Your task to perform on an android device: turn pop-ups on in chrome Image 0: 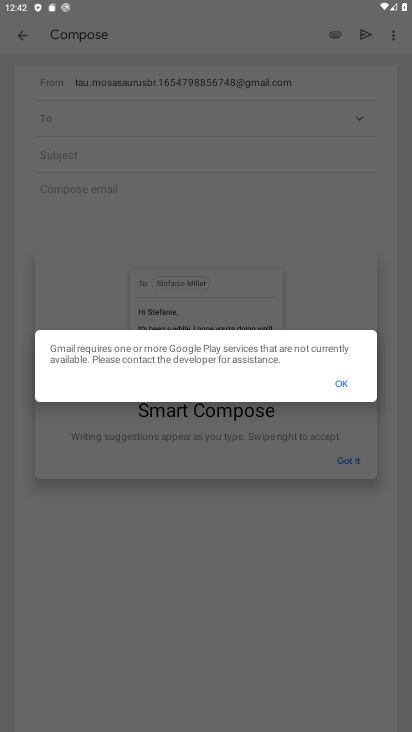
Step 0: press home button
Your task to perform on an android device: turn pop-ups on in chrome Image 1: 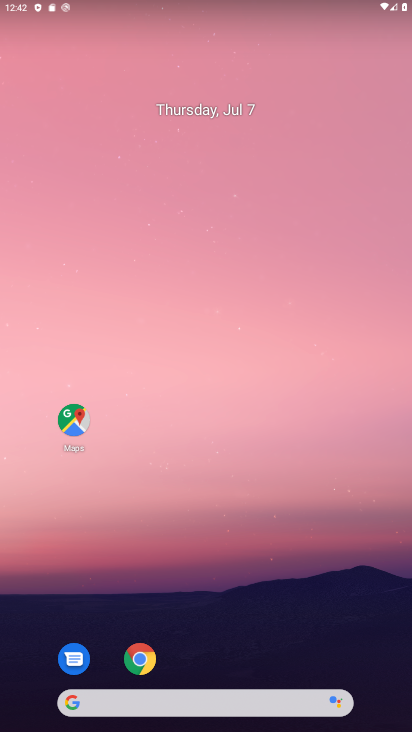
Step 1: click (147, 663)
Your task to perform on an android device: turn pop-ups on in chrome Image 2: 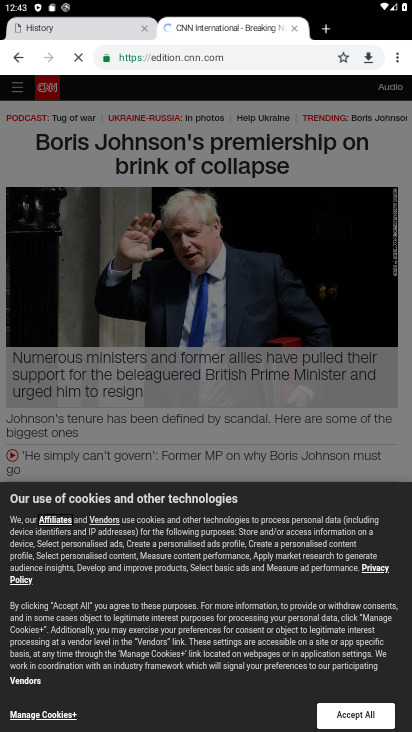
Step 2: click (396, 58)
Your task to perform on an android device: turn pop-ups on in chrome Image 3: 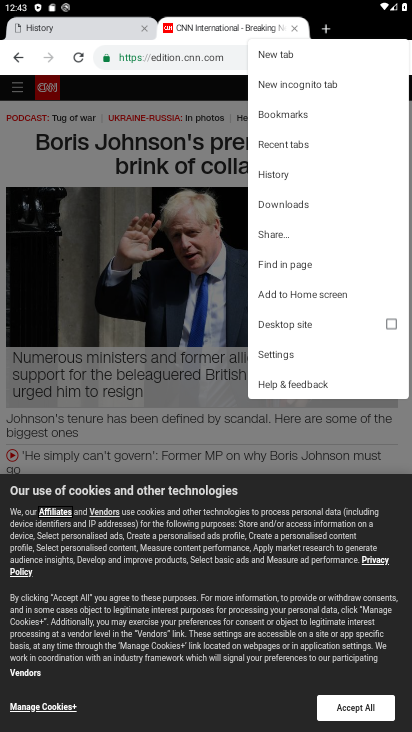
Step 3: click (291, 347)
Your task to perform on an android device: turn pop-ups on in chrome Image 4: 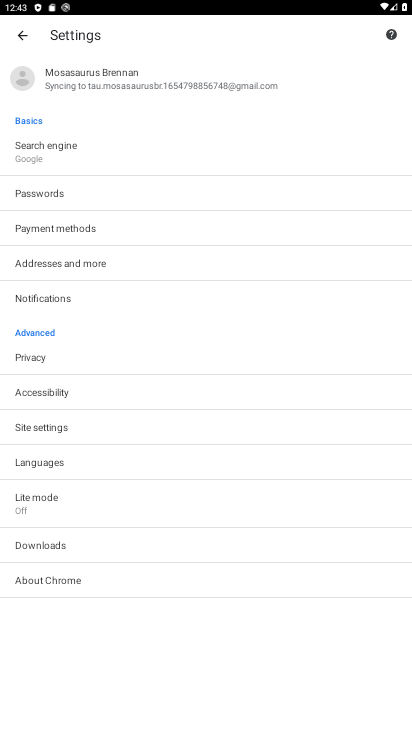
Step 4: click (56, 421)
Your task to perform on an android device: turn pop-ups on in chrome Image 5: 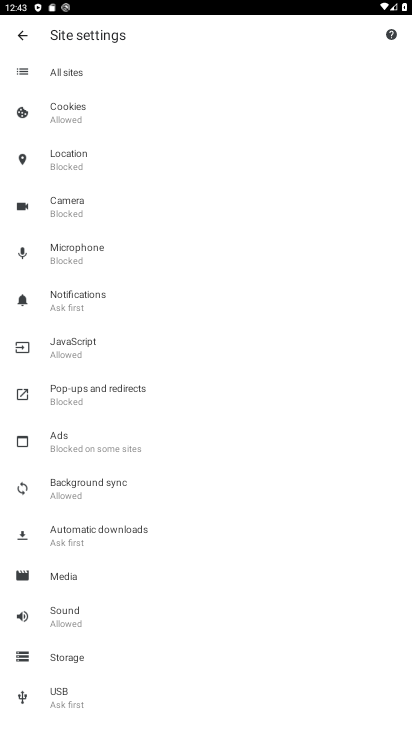
Step 5: click (98, 385)
Your task to perform on an android device: turn pop-ups on in chrome Image 6: 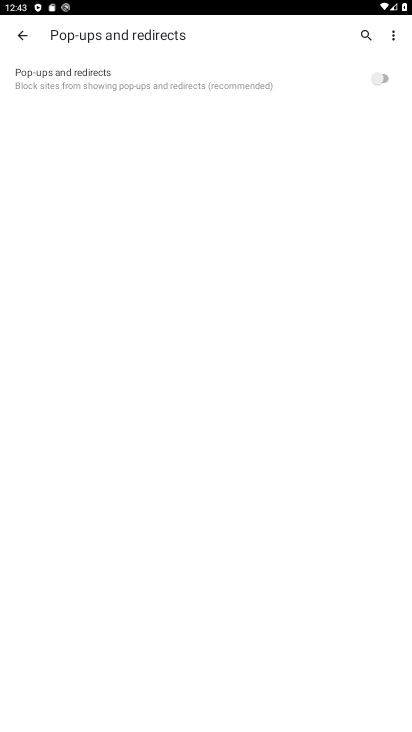
Step 6: click (376, 70)
Your task to perform on an android device: turn pop-ups on in chrome Image 7: 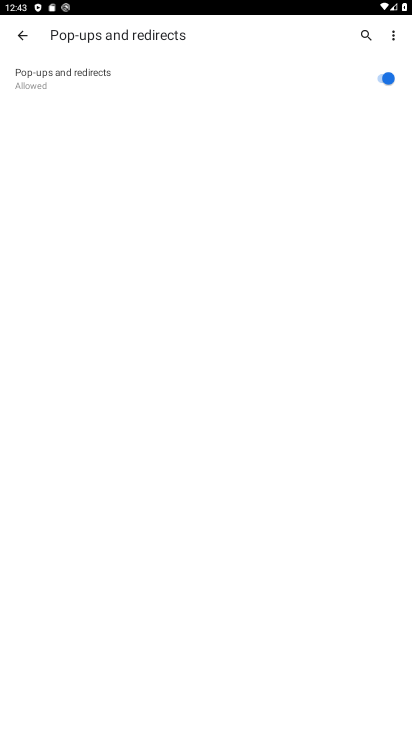
Step 7: task complete